Your task to perform on an android device: toggle airplane mode Image 0: 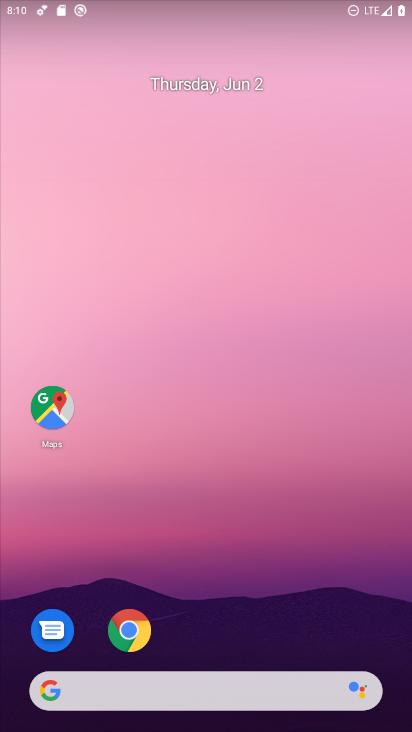
Step 0: drag from (316, 21) to (262, 440)
Your task to perform on an android device: toggle airplane mode Image 1: 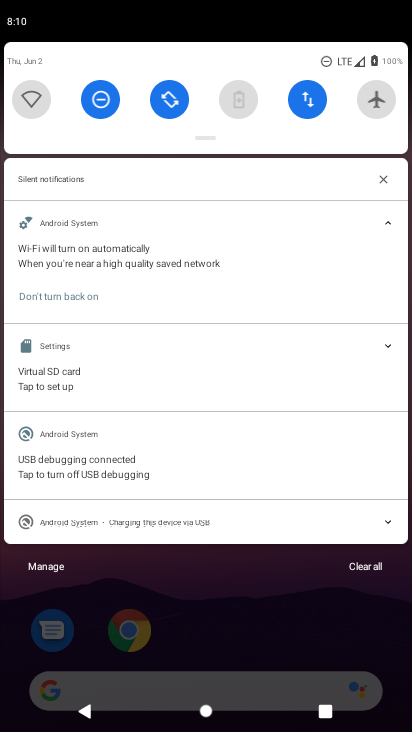
Step 1: click (377, 99)
Your task to perform on an android device: toggle airplane mode Image 2: 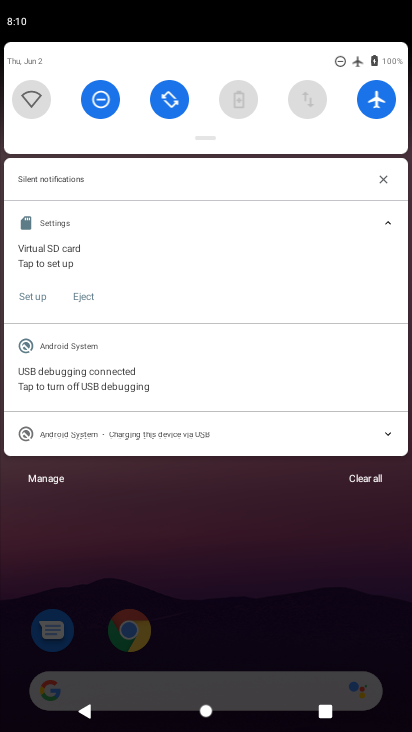
Step 2: click (345, 498)
Your task to perform on an android device: toggle airplane mode Image 3: 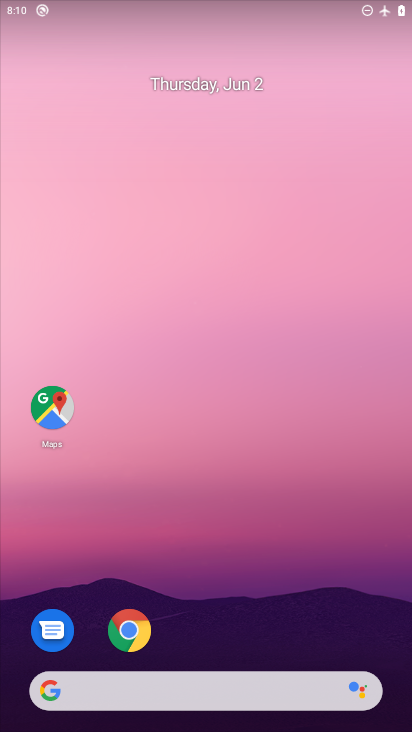
Step 3: task complete